Your task to perform on an android device: move an email to a new category in the gmail app Image 0: 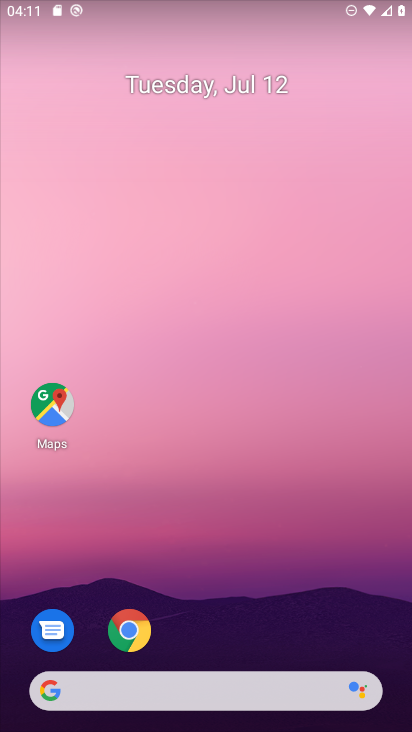
Step 0: drag from (389, 648) to (305, 156)
Your task to perform on an android device: move an email to a new category in the gmail app Image 1: 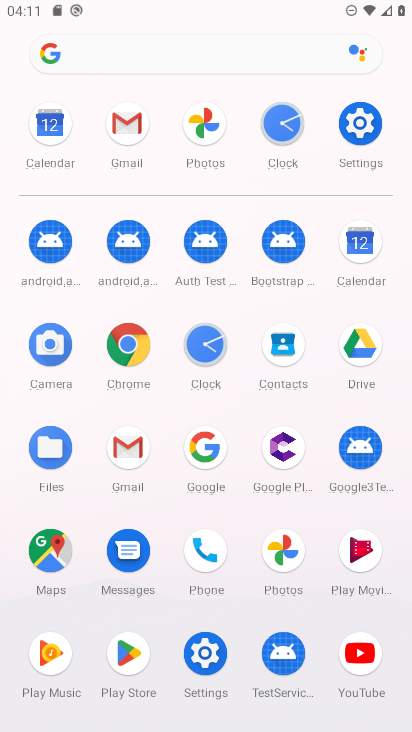
Step 1: click (128, 450)
Your task to perform on an android device: move an email to a new category in the gmail app Image 2: 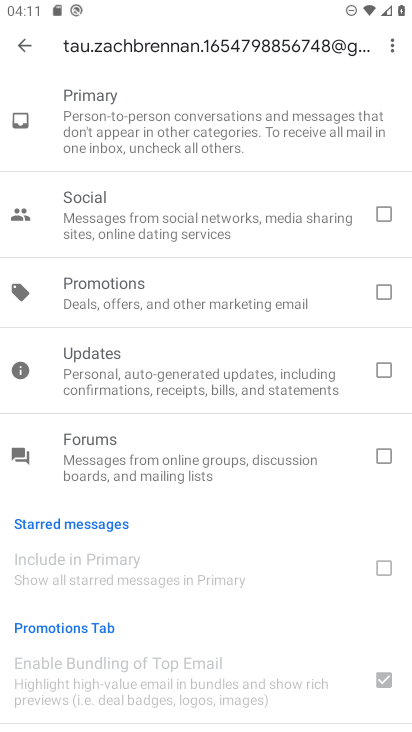
Step 2: press back button
Your task to perform on an android device: move an email to a new category in the gmail app Image 3: 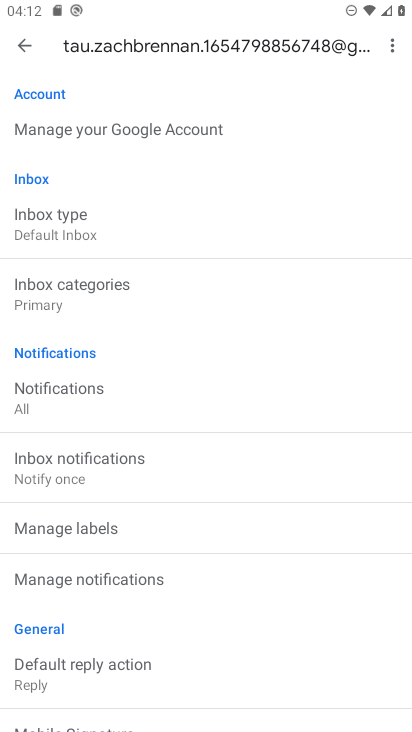
Step 3: press back button
Your task to perform on an android device: move an email to a new category in the gmail app Image 4: 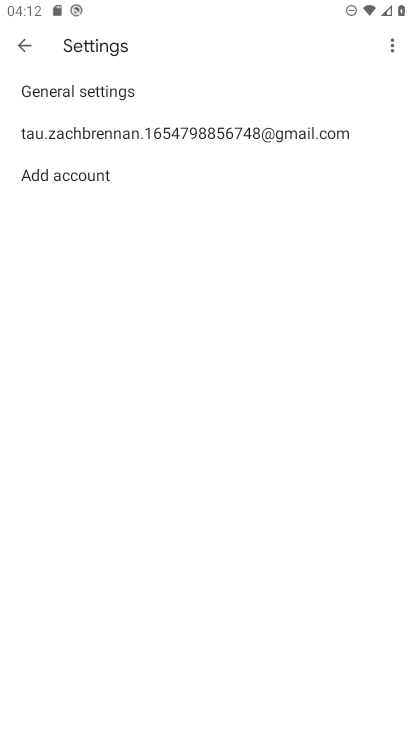
Step 4: press back button
Your task to perform on an android device: move an email to a new category in the gmail app Image 5: 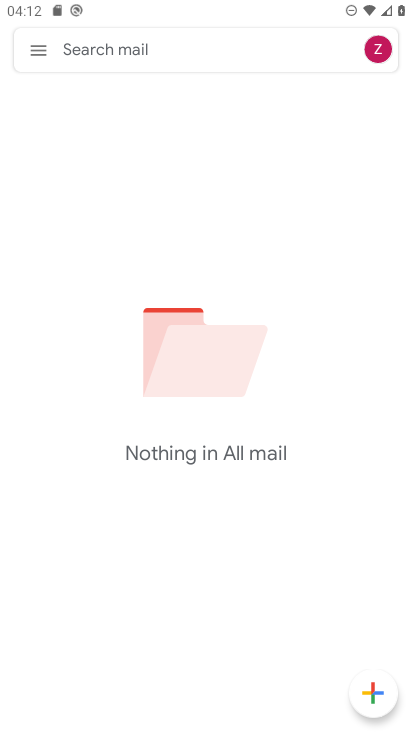
Step 5: click (34, 53)
Your task to perform on an android device: move an email to a new category in the gmail app Image 6: 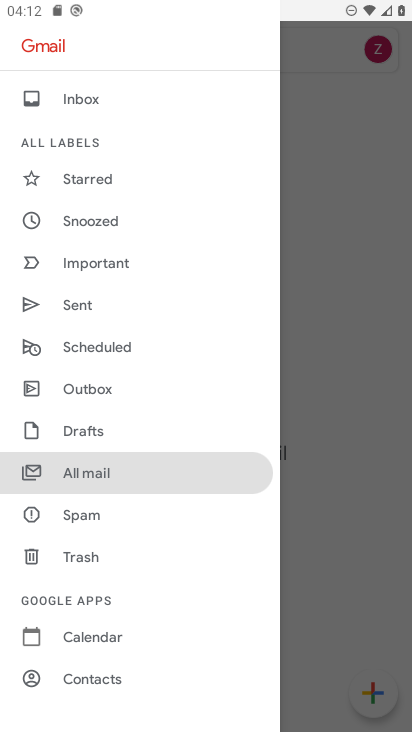
Step 6: click (89, 479)
Your task to perform on an android device: move an email to a new category in the gmail app Image 7: 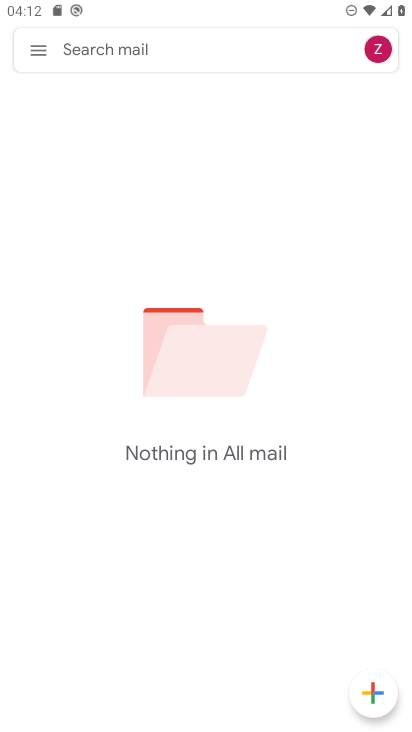
Step 7: task complete